Your task to perform on an android device: turn on improve location accuracy Image 0: 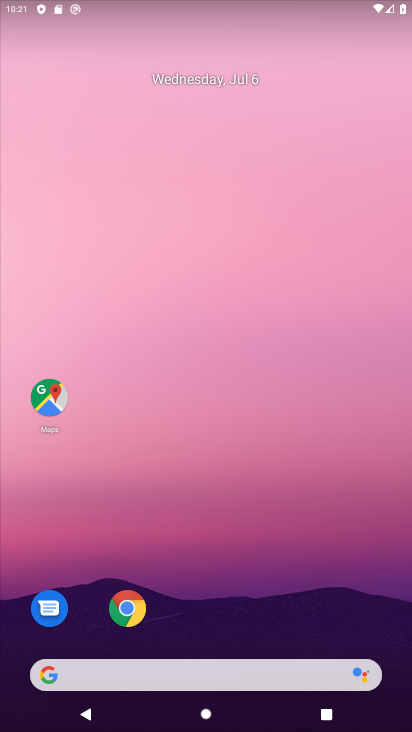
Step 0: drag from (296, 573) to (281, 19)
Your task to perform on an android device: turn on improve location accuracy Image 1: 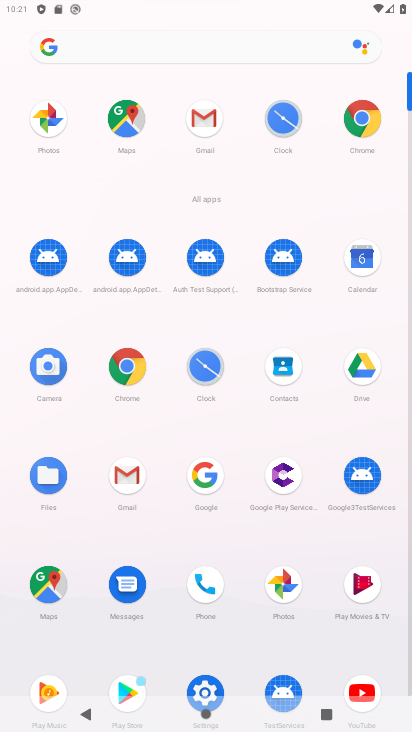
Step 1: click (207, 690)
Your task to perform on an android device: turn on improve location accuracy Image 2: 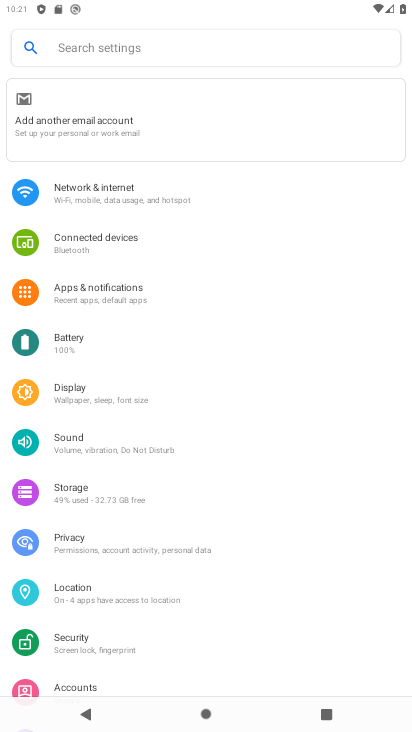
Step 2: click (96, 594)
Your task to perform on an android device: turn on improve location accuracy Image 3: 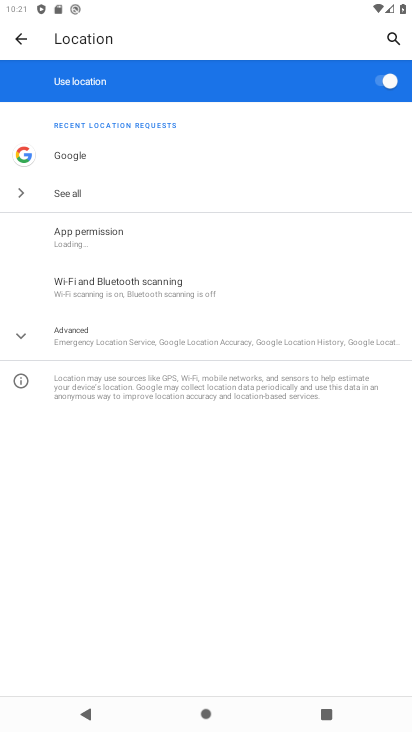
Step 3: click (80, 337)
Your task to perform on an android device: turn on improve location accuracy Image 4: 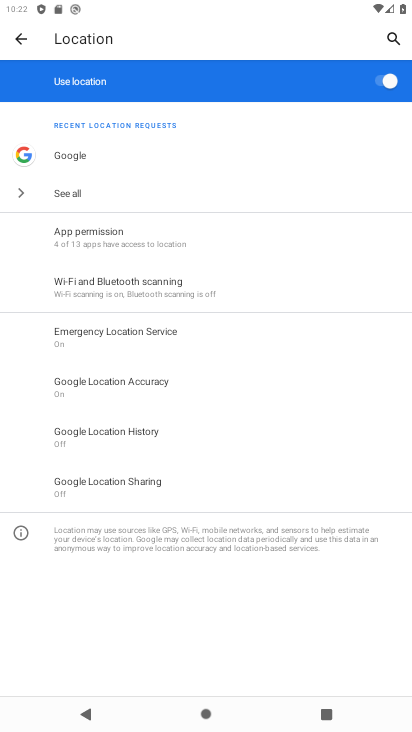
Step 4: click (149, 385)
Your task to perform on an android device: turn on improve location accuracy Image 5: 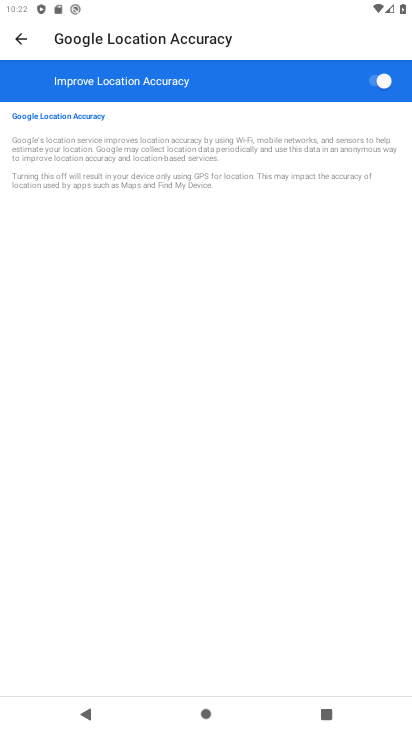
Step 5: task complete